Your task to perform on an android device: move an email to a new category in the gmail app Image 0: 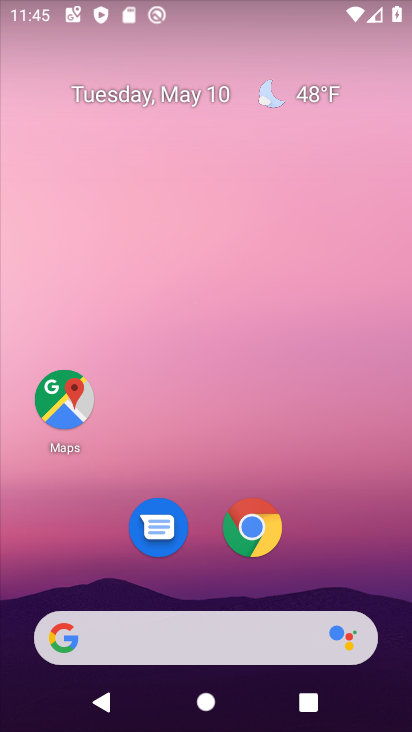
Step 0: drag from (224, 728) to (200, 166)
Your task to perform on an android device: move an email to a new category in the gmail app Image 1: 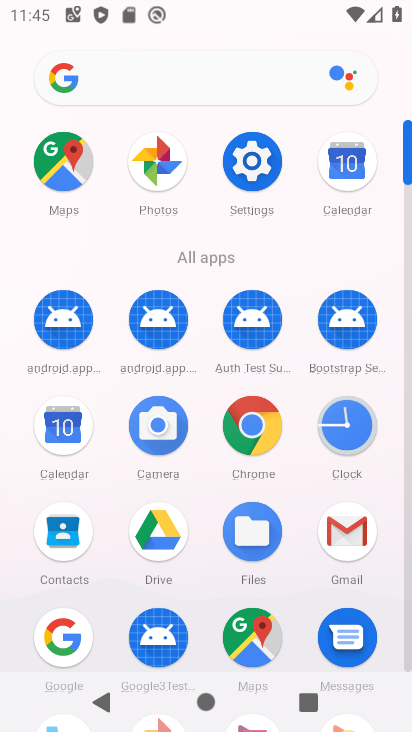
Step 1: click (353, 540)
Your task to perform on an android device: move an email to a new category in the gmail app Image 2: 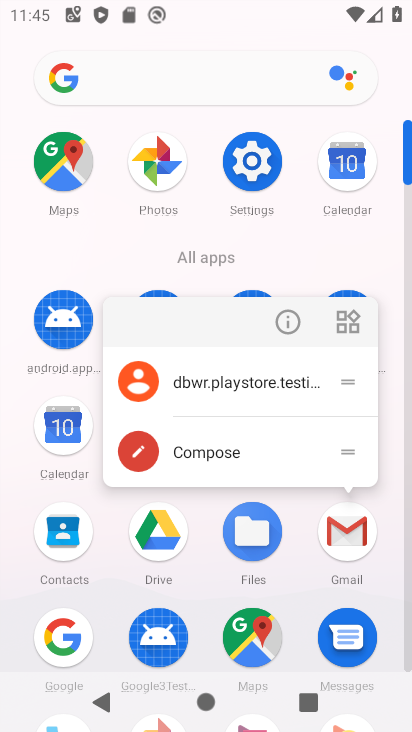
Step 2: click (351, 541)
Your task to perform on an android device: move an email to a new category in the gmail app Image 3: 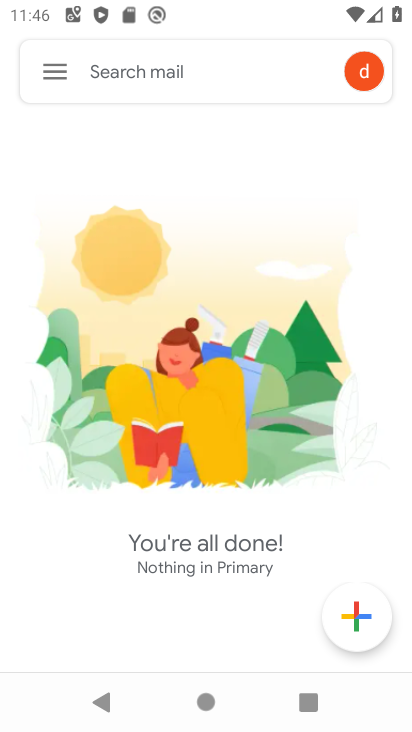
Step 3: task complete